Your task to perform on an android device: toggle notification dots Image 0: 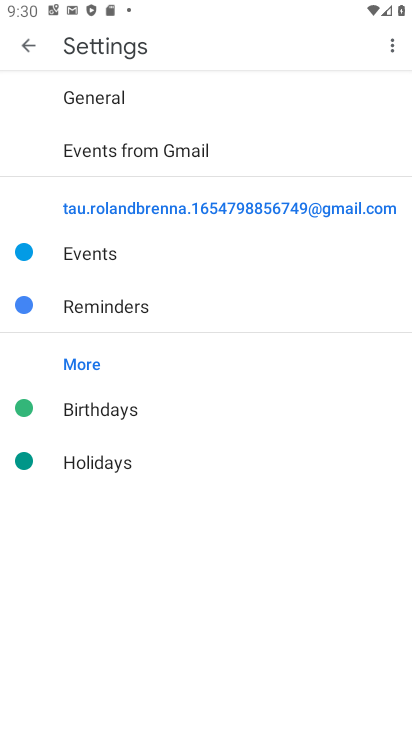
Step 0: press home button
Your task to perform on an android device: toggle notification dots Image 1: 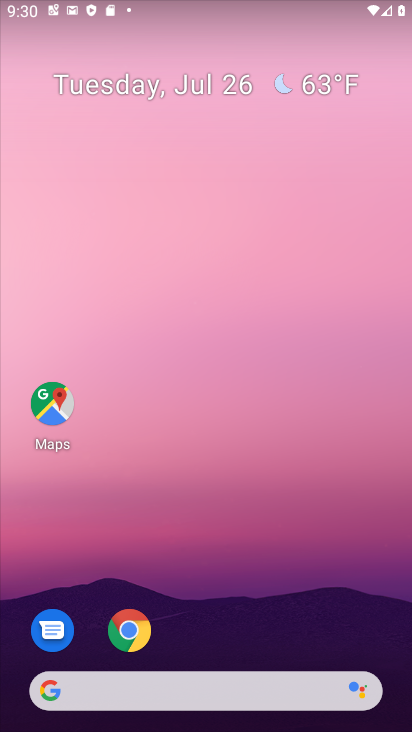
Step 1: drag from (215, 650) to (245, 19)
Your task to perform on an android device: toggle notification dots Image 2: 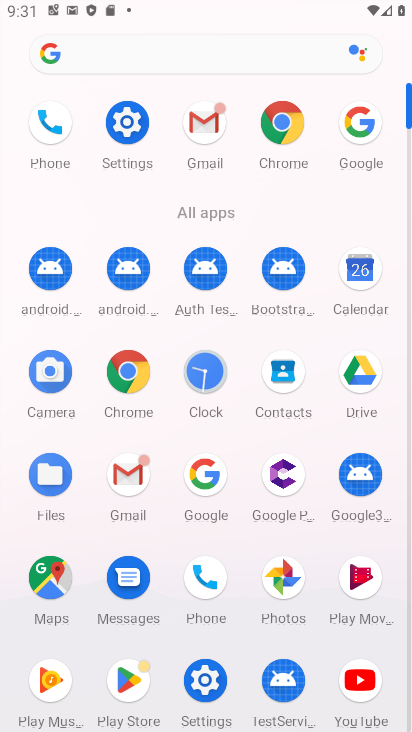
Step 2: click (123, 115)
Your task to perform on an android device: toggle notification dots Image 3: 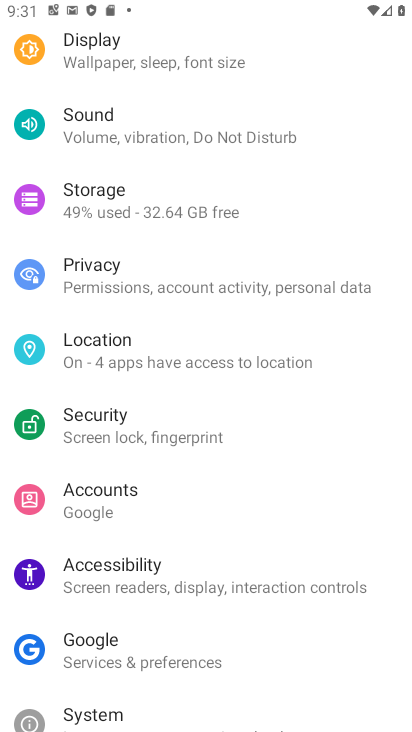
Step 3: drag from (169, 92) to (135, 544)
Your task to perform on an android device: toggle notification dots Image 4: 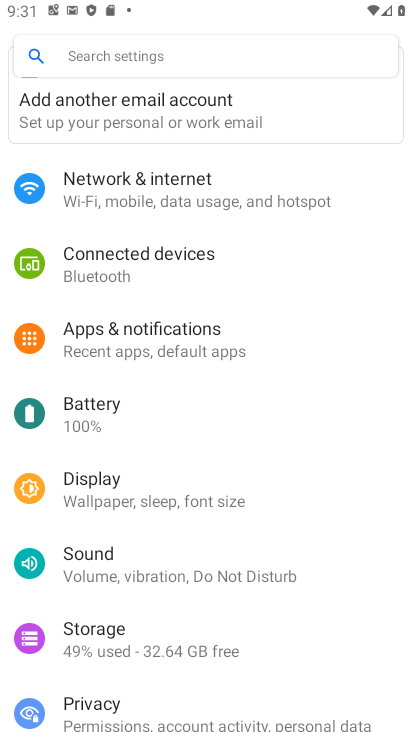
Step 4: click (184, 345)
Your task to perform on an android device: toggle notification dots Image 5: 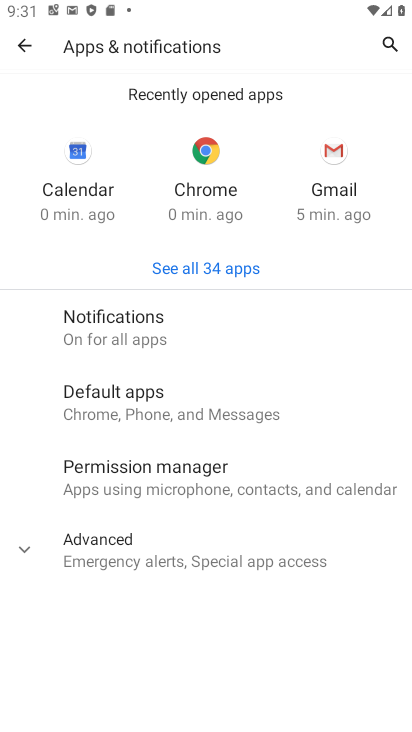
Step 5: click (181, 324)
Your task to perform on an android device: toggle notification dots Image 6: 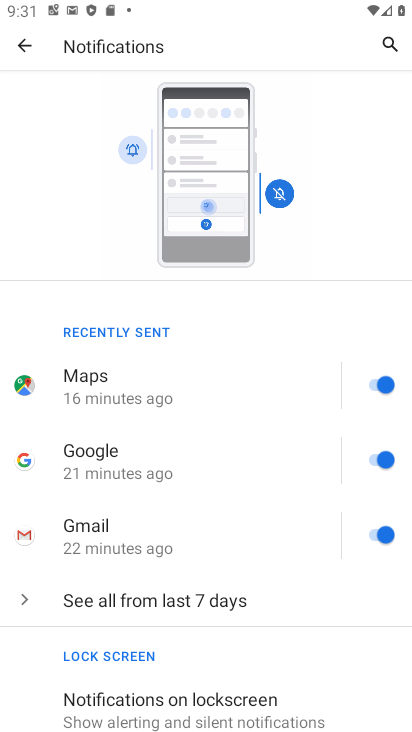
Step 6: drag from (251, 669) to (266, 146)
Your task to perform on an android device: toggle notification dots Image 7: 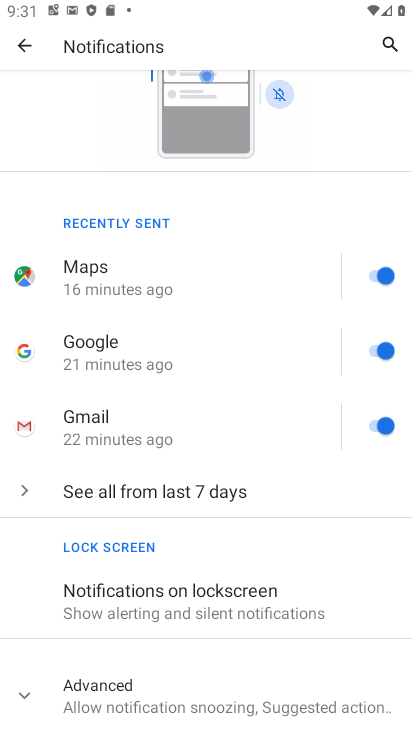
Step 7: click (17, 691)
Your task to perform on an android device: toggle notification dots Image 8: 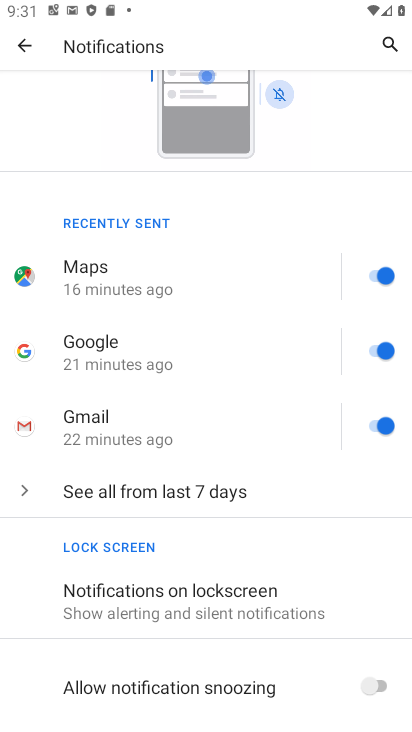
Step 8: drag from (179, 665) to (228, 154)
Your task to perform on an android device: toggle notification dots Image 9: 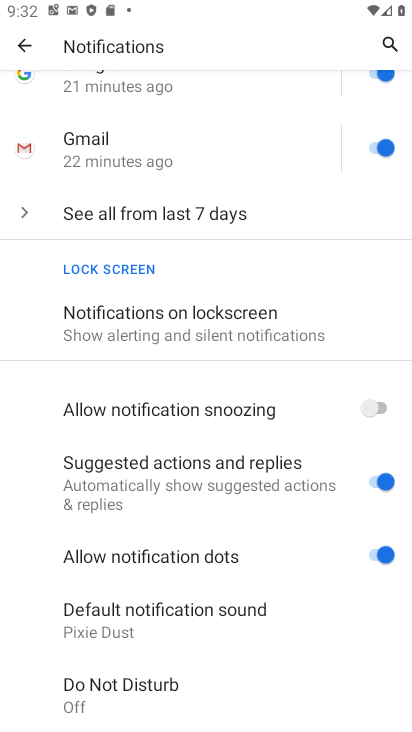
Step 9: click (376, 546)
Your task to perform on an android device: toggle notification dots Image 10: 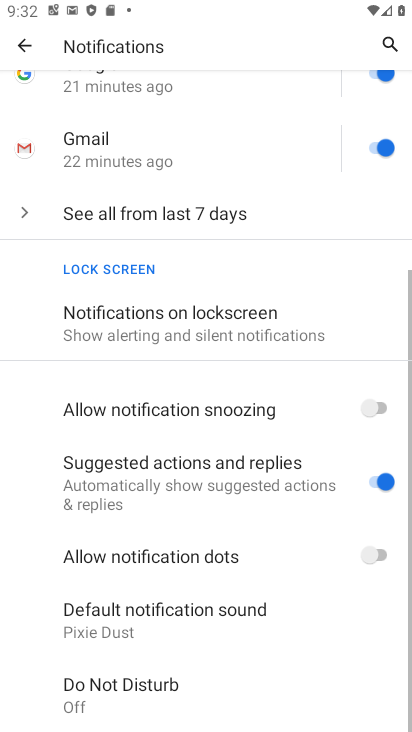
Step 10: task complete